Your task to perform on an android device: open a bookmark in the chrome app Image 0: 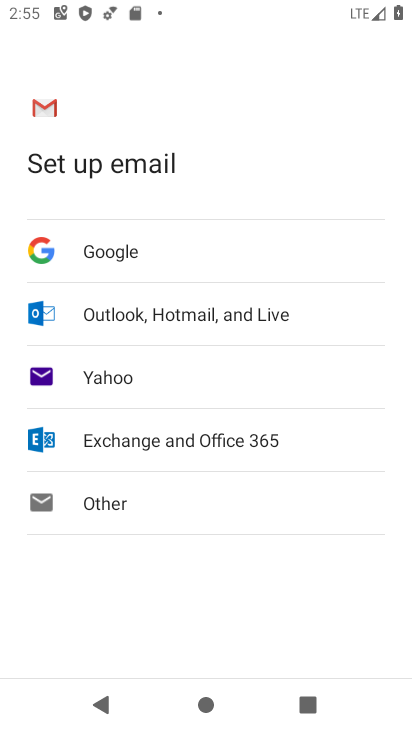
Step 0: press home button
Your task to perform on an android device: open a bookmark in the chrome app Image 1: 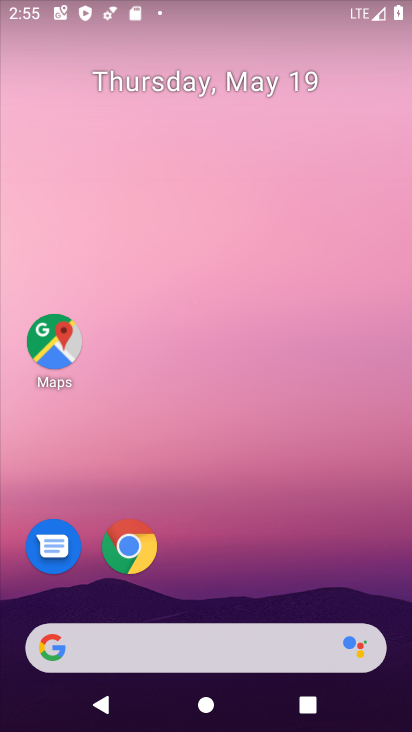
Step 1: click (137, 549)
Your task to perform on an android device: open a bookmark in the chrome app Image 2: 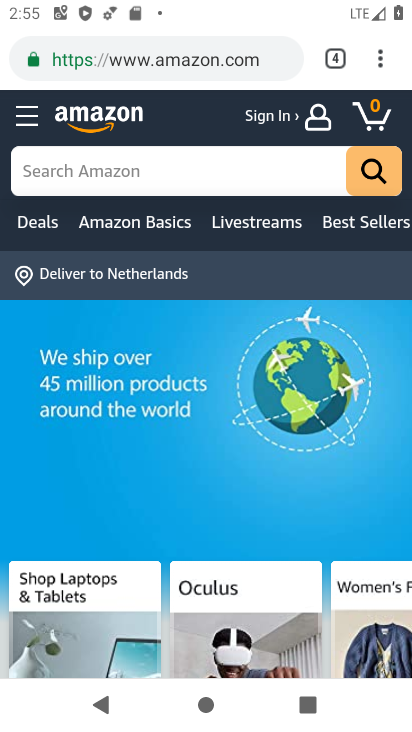
Step 2: task complete